Your task to perform on an android device: Go to calendar. Show me events next week Image 0: 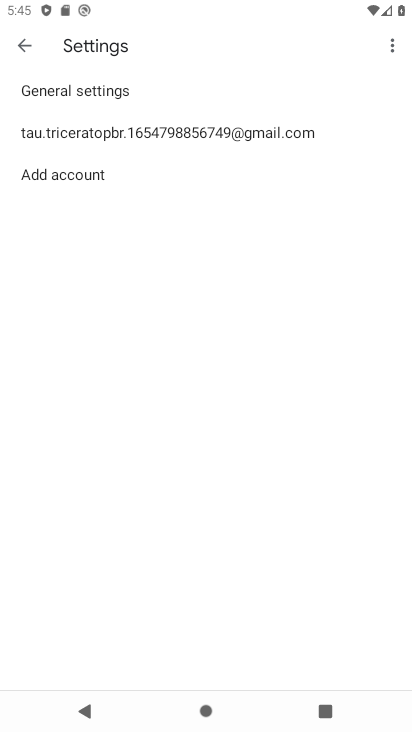
Step 0: press home button
Your task to perform on an android device: Go to calendar. Show me events next week Image 1: 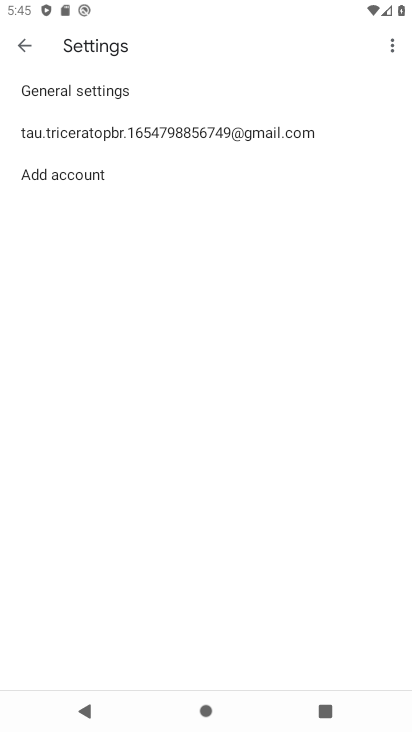
Step 1: press home button
Your task to perform on an android device: Go to calendar. Show me events next week Image 2: 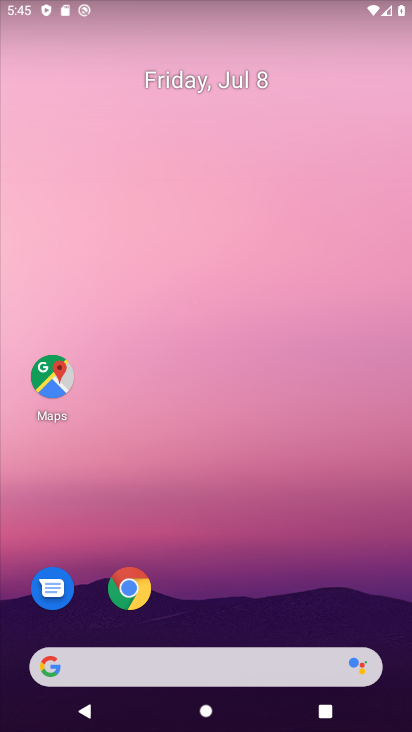
Step 2: press home button
Your task to perform on an android device: Go to calendar. Show me events next week Image 3: 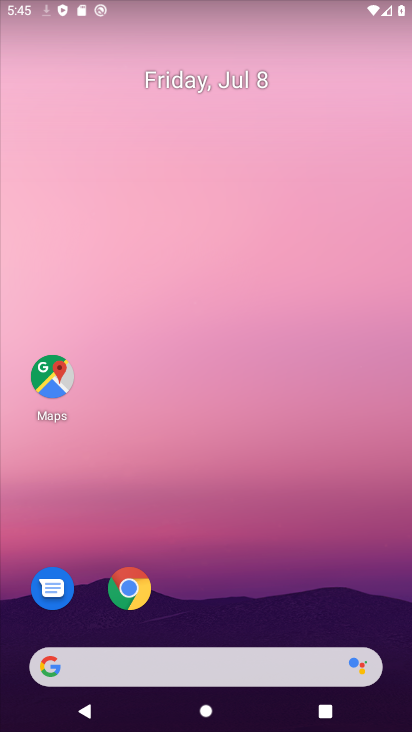
Step 3: press home button
Your task to perform on an android device: Go to calendar. Show me events next week Image 4: 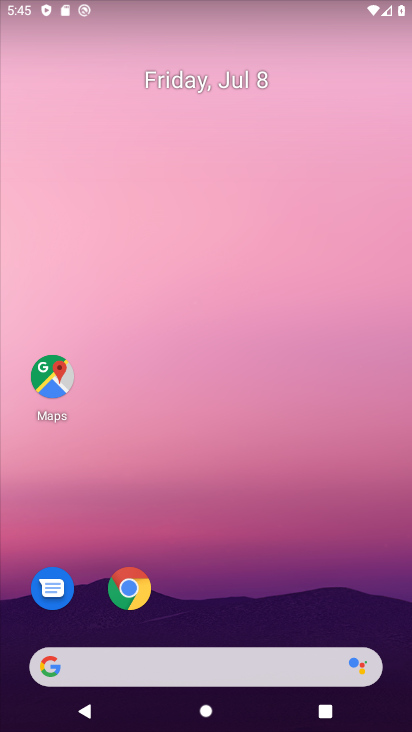
Step 4: drag from (224, 581) to (224, 169)
Your task to perform on an android device: Go to calendar. Show me events next week Image 5: 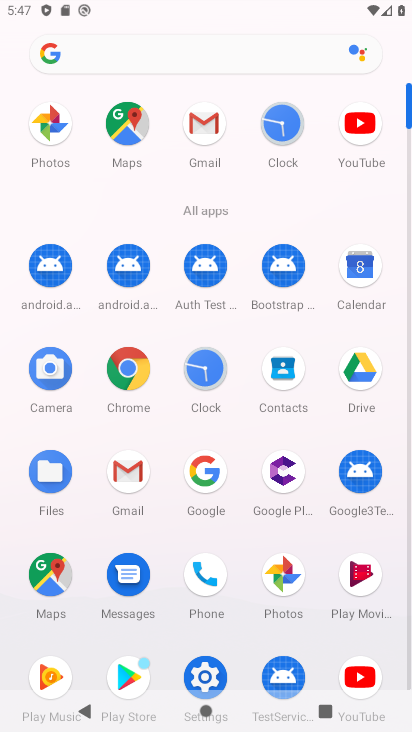
Step 5: click (347, 271)
Your task to perform on an android device: Go to calendar. Show me events next week Image 6: 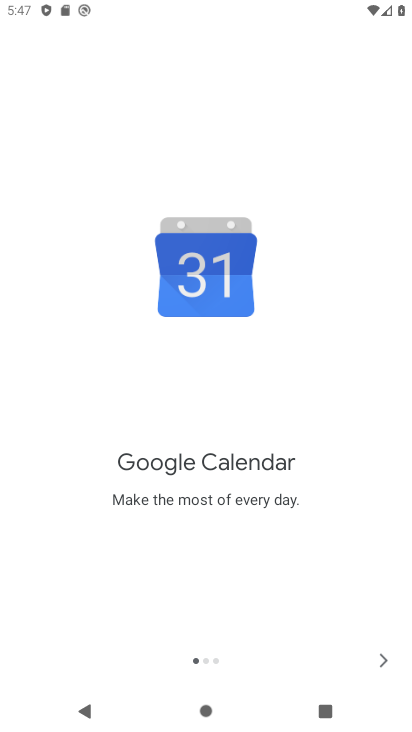
Step 6: click (385, 647)
Your task to perform on an android device: Go to calendar. Show me events next week Image 7: 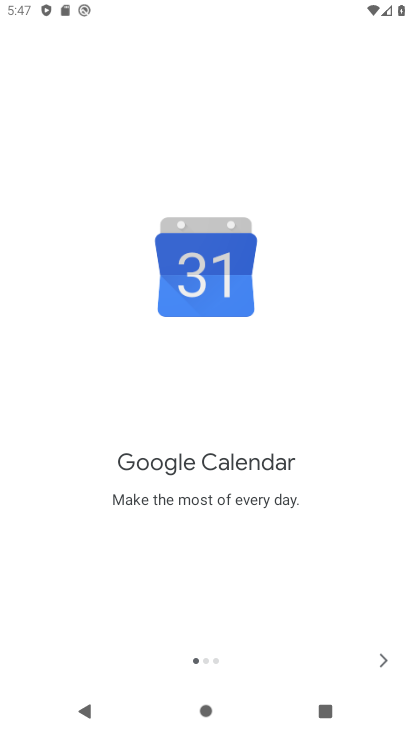
Step 7: click (385, 647)
Your task to perform on an android device: Go to calendar. Show me events next week Image 8: 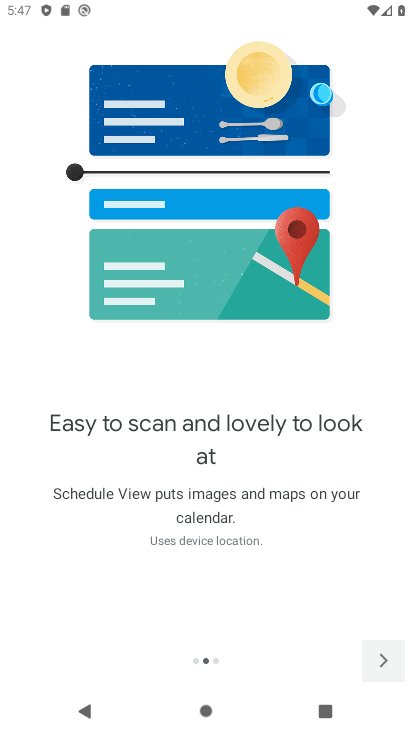
Step 8: click (385, 647)
Your task to perform on an android device: Go to calendar. Show me events next week Image 9: 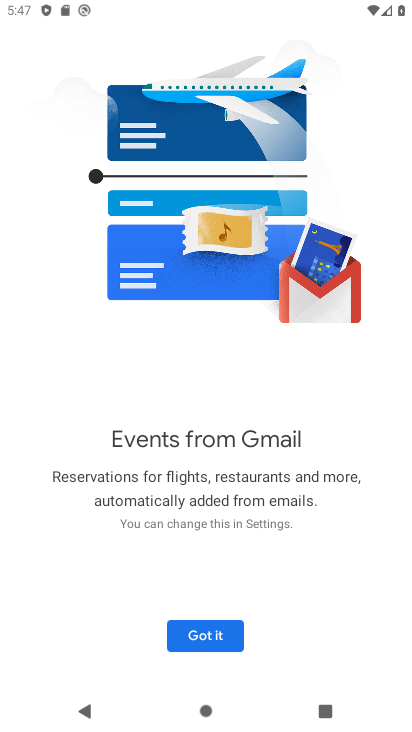
Step 9: click (203, 648)
Your task to perform on an android device: Go to calendar. Show me events next week Image 10: 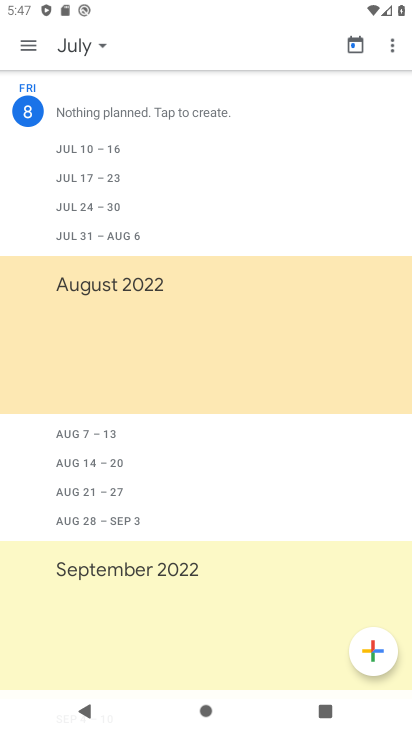
Step 10: click (97, 53)
Your task to perform on an android device: Go to calendar. Show me events next week Image 11: 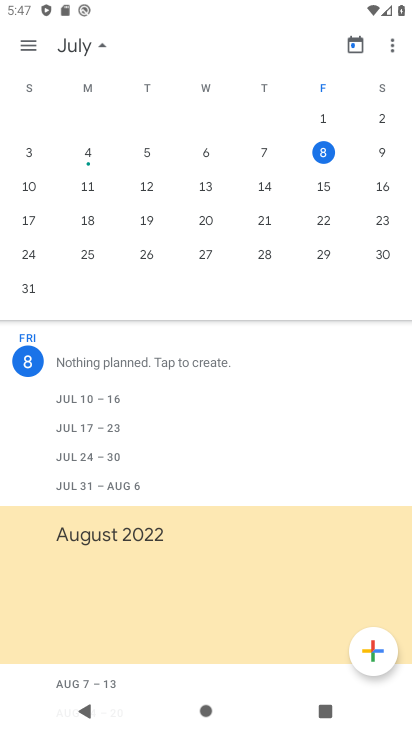
Step 11: click (319, 207)
Your task to perform on an android device: Go to calendar. Show me events next week Image 12: 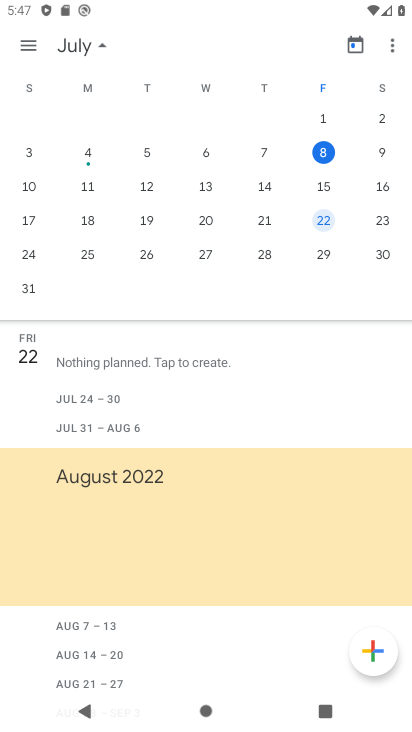
Step 12: task complete